Your task to perform on an android device: turn on airplane mode Image 0: 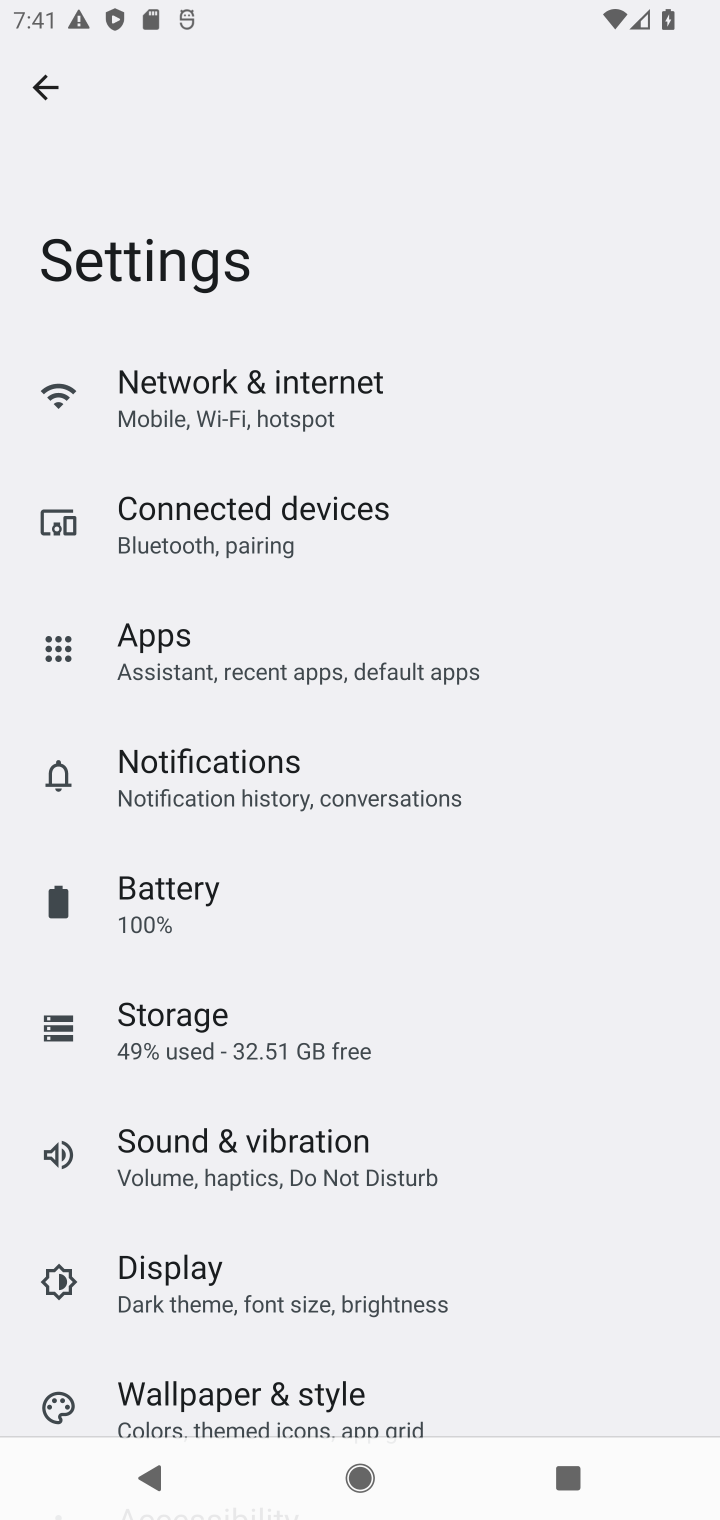
Step 0: click (321, 396)
Your task to perform on an android device: turn on airplane mode Image 1: 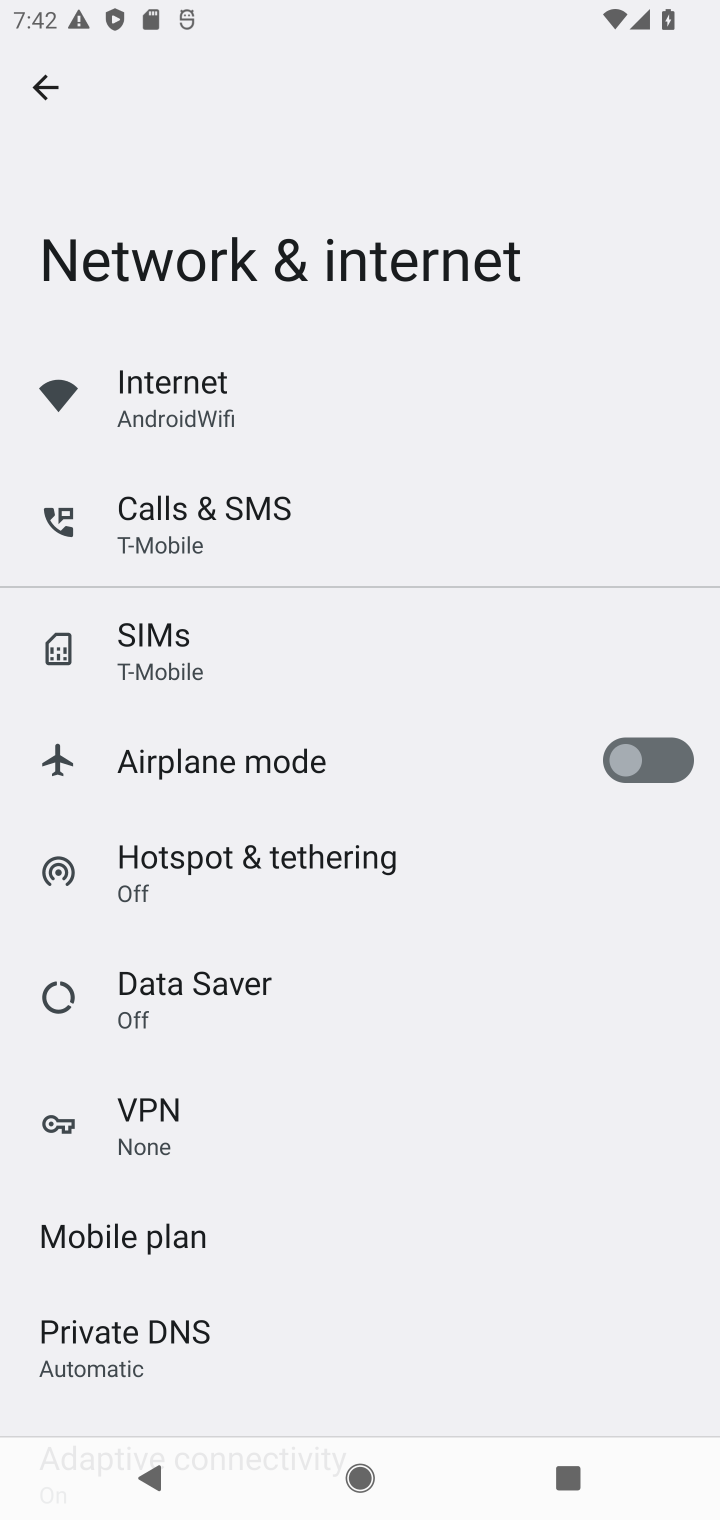
Step 1: click (642, 758)
Your task to perform on an android device: turn on airplane mode Image 2: 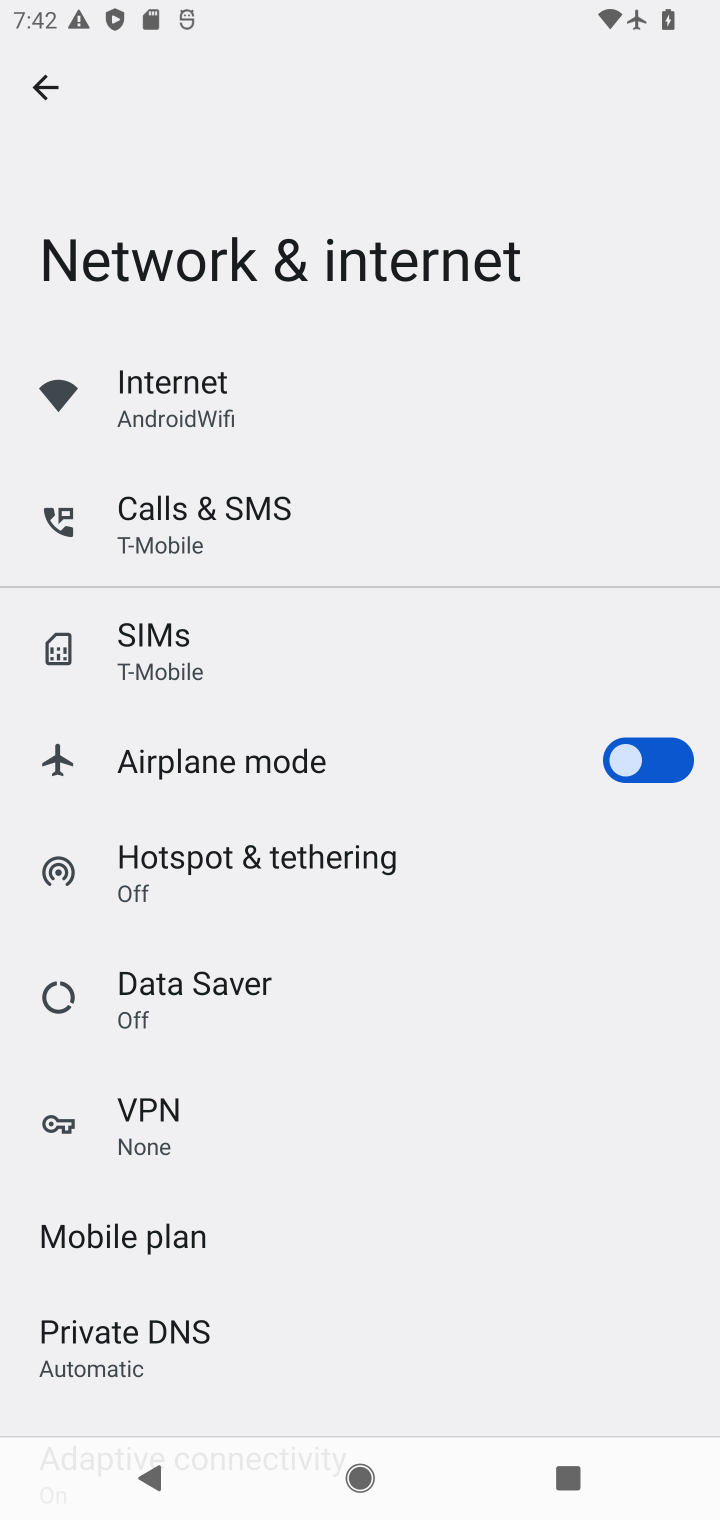
Step 2: task complete